Your task to perform on an android device: open app "Pandora - Music & Podcasts" Image 0: 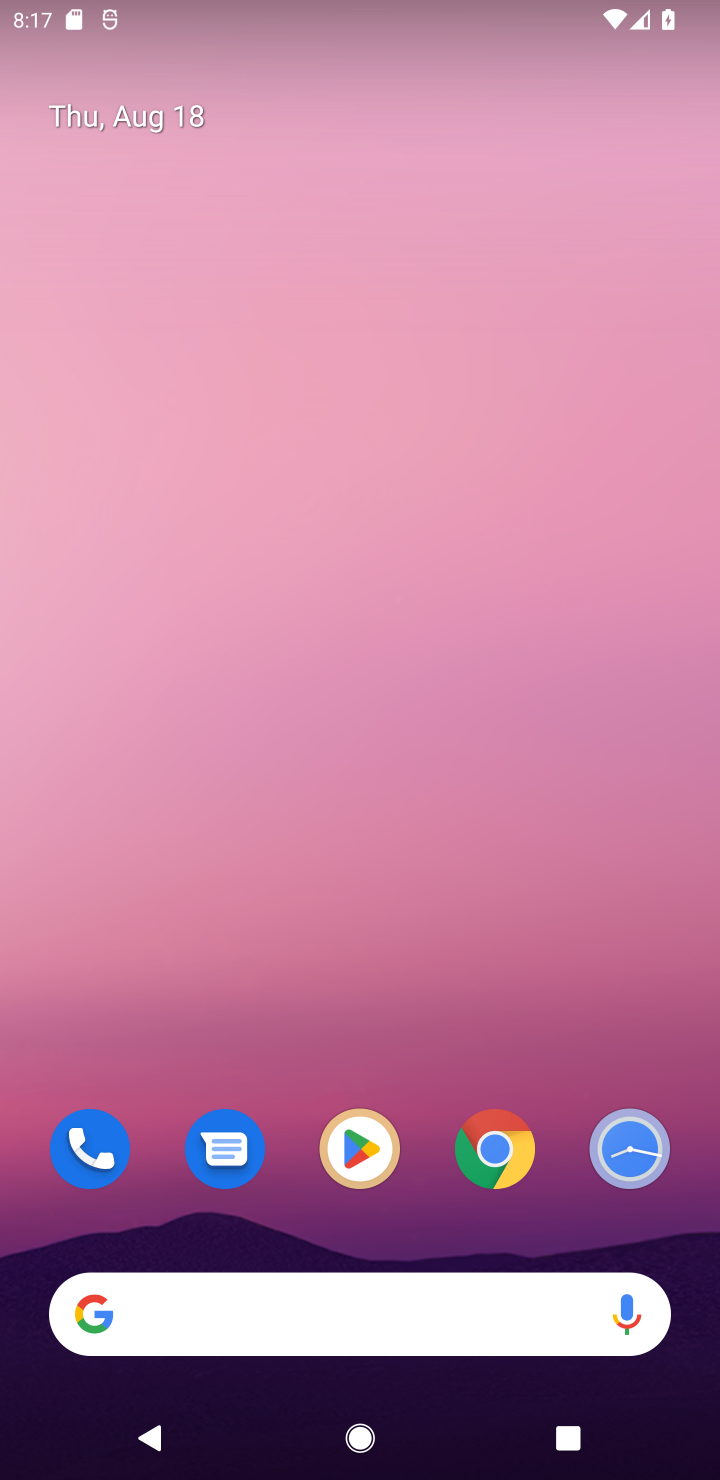
Step 0: drag from (550, 1118) to (306, 32)
Your task to perform on an android device: open app "Pandora - Music & Podcasts" Image 1: 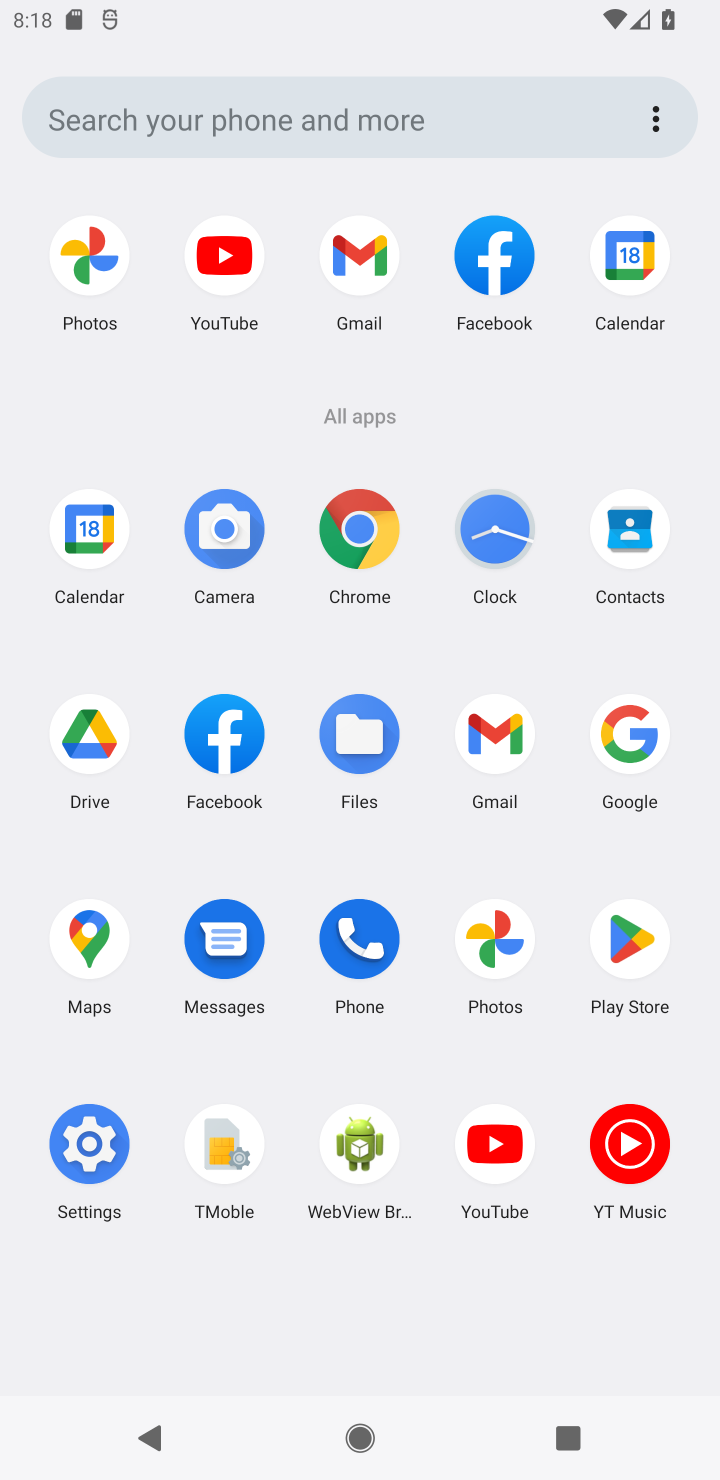
Step 1: click (633, 958)
Your task to perform on an android device: open app "Pandora - Music & Podcasts" Image 2: 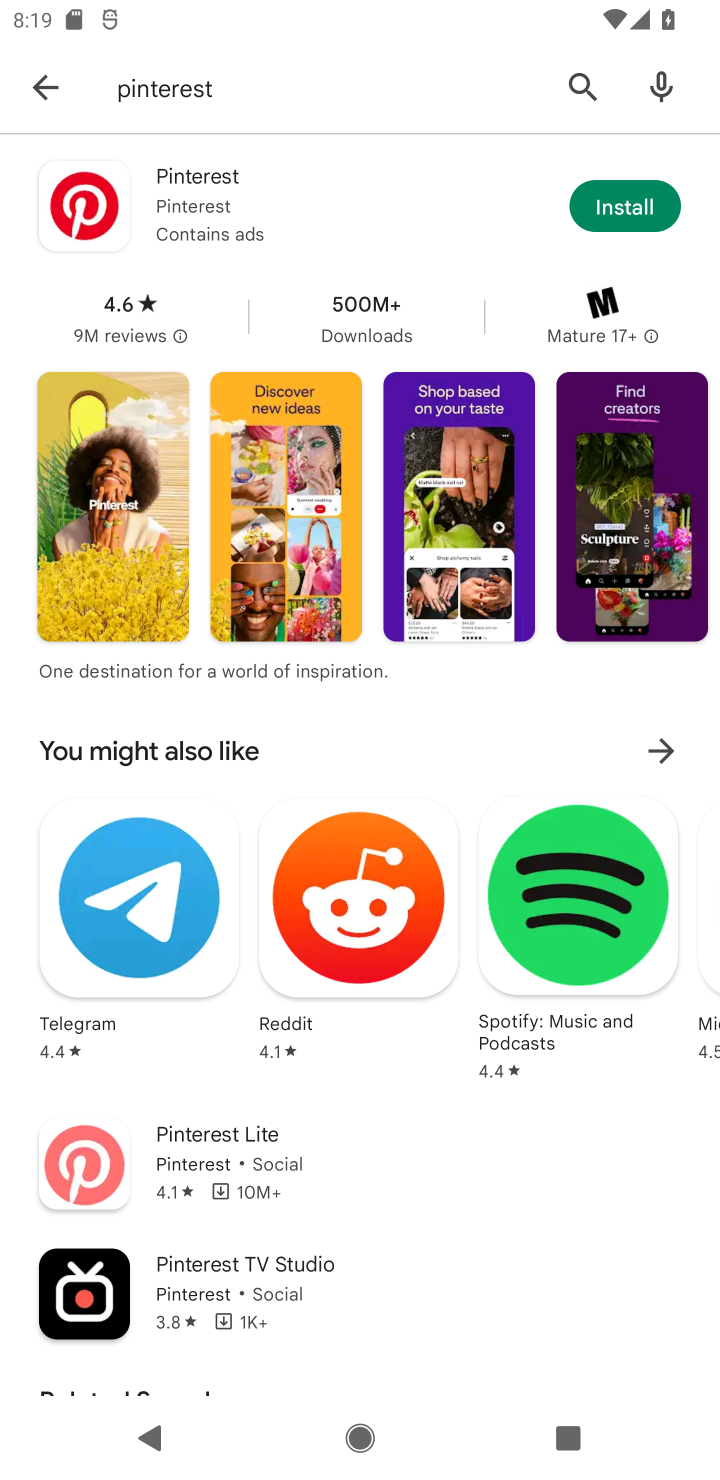
Step 2: press back button
Your task to perform on an android device: open app "Pandora - Music & Podcasts" Image 3: 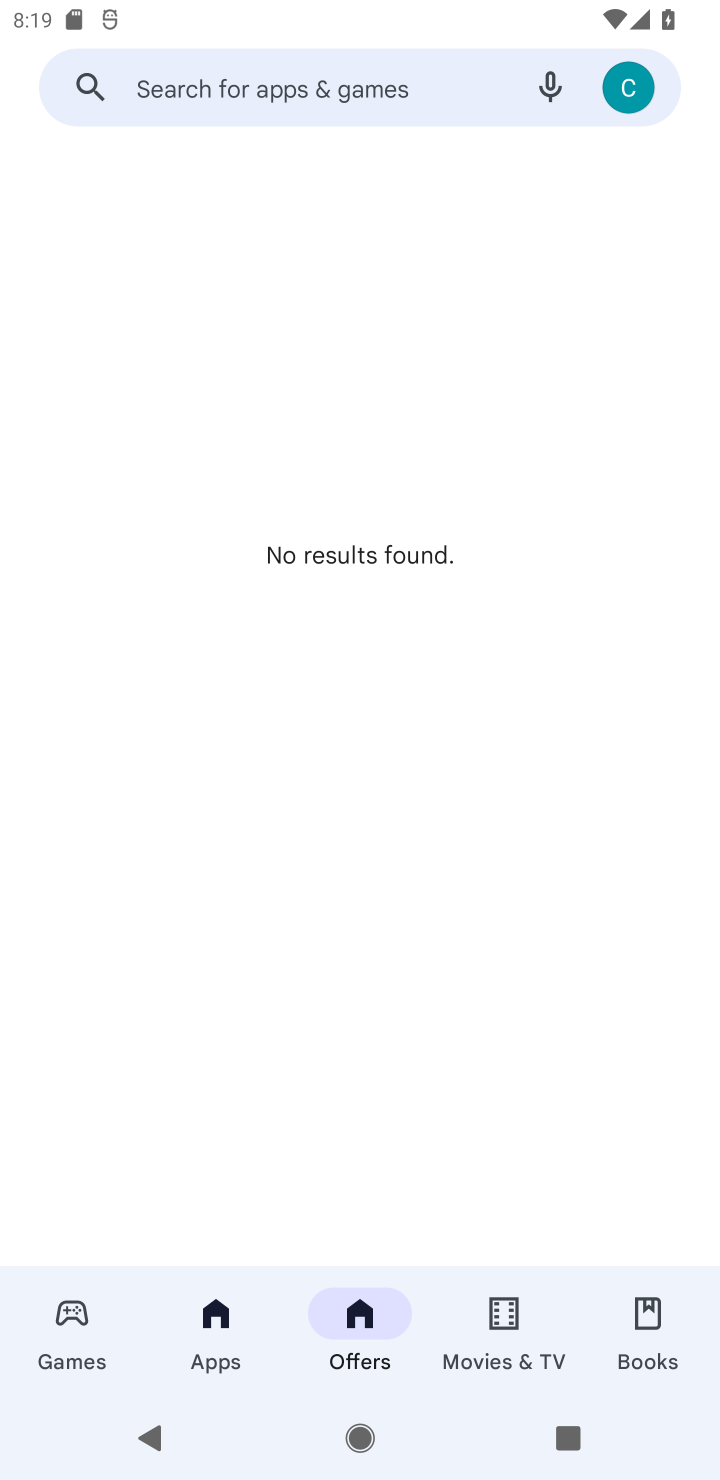
Step 3: click (266, 97)
Your task to perform on an android device: open app "Pandora - Music & Podcasts" Image 4: 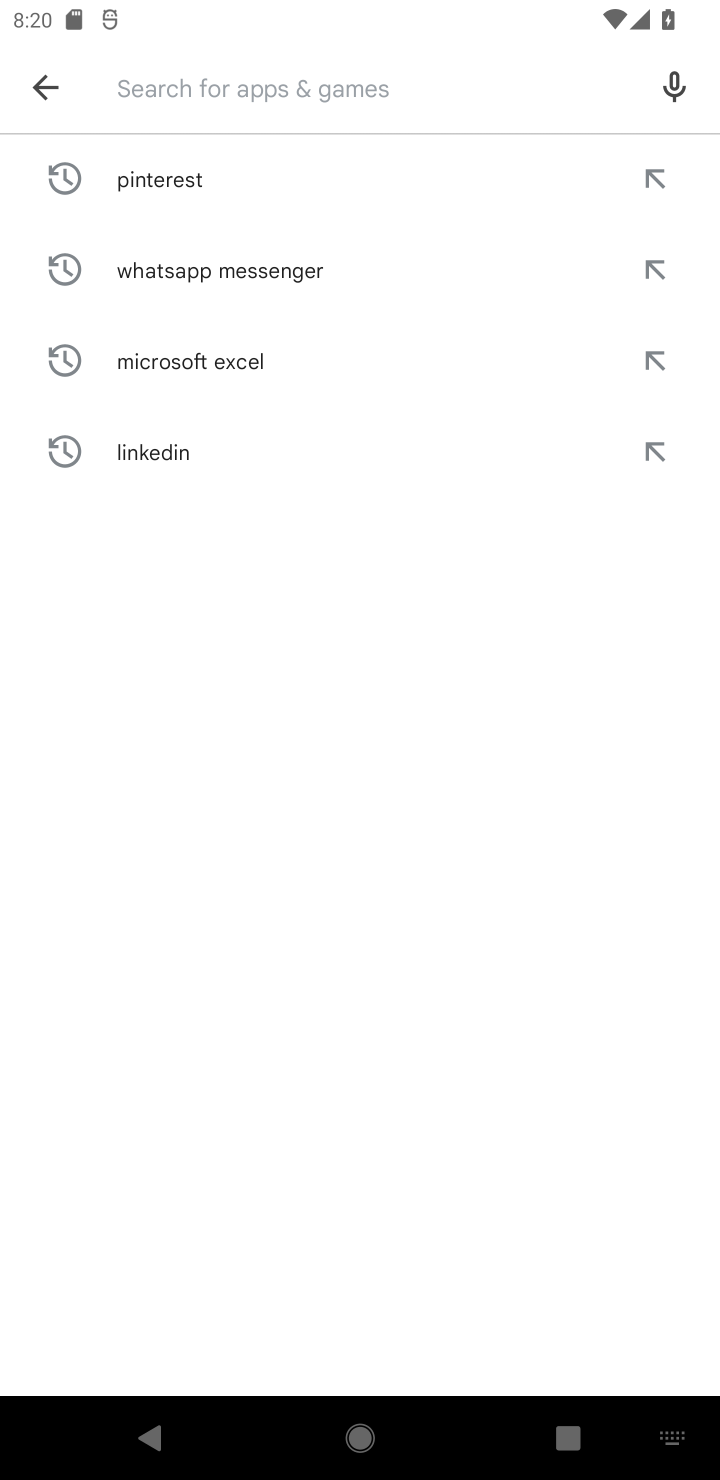
Step 4: type "Pandora - Music & Podcasts"
Your task to perform on an android device: open app "Pandora - Music & Podcasts" Image 5: 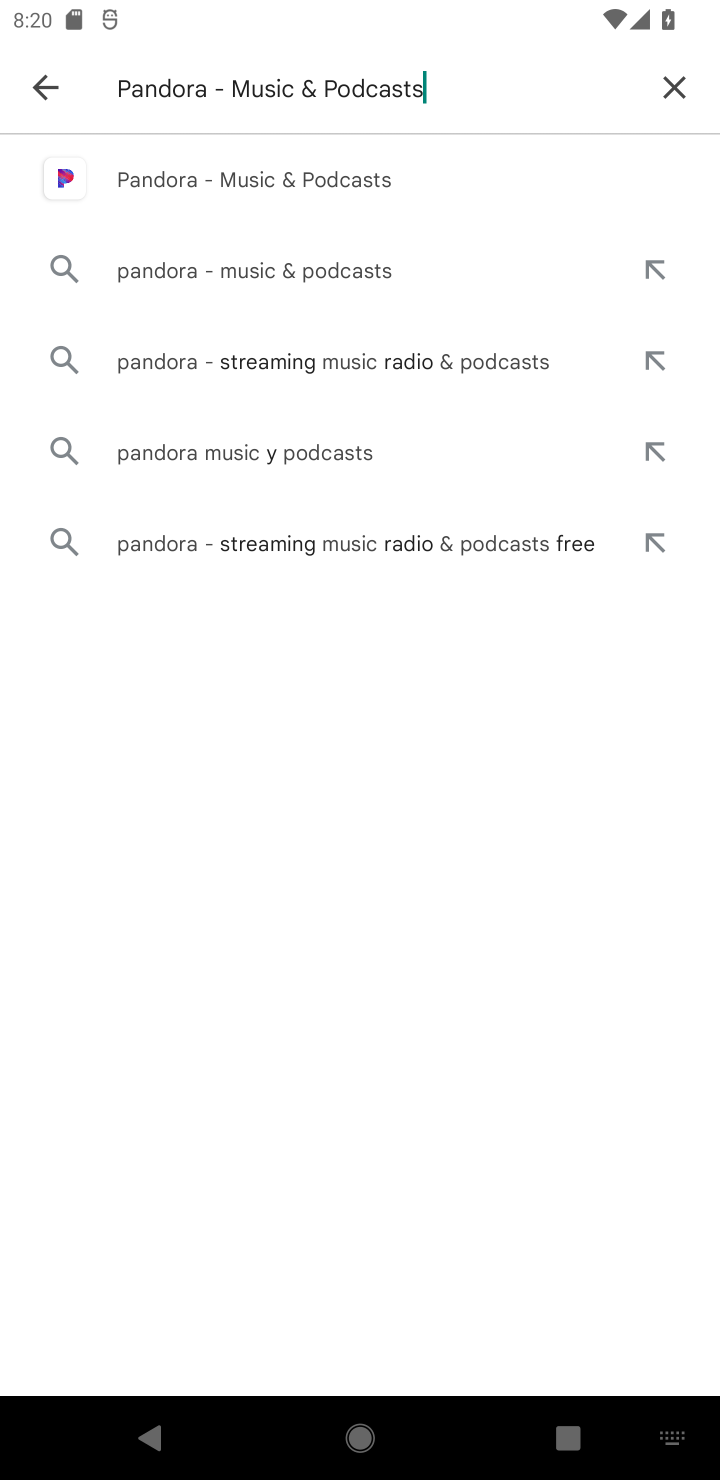
Step 5: click (275, 196)
Your task to perform on an android device: open app "Pandora - Music & Podcasts" Image 6: 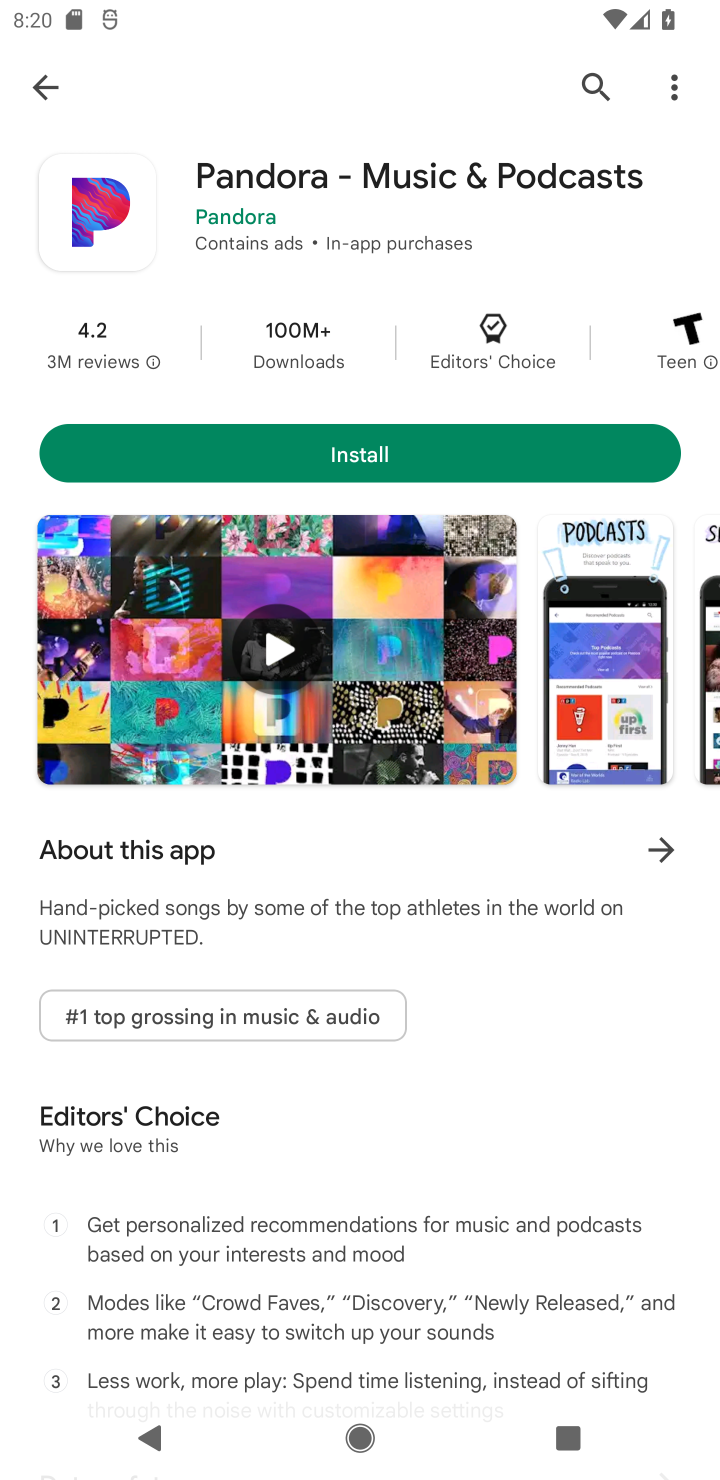
Step 6: task complete